Your task to perform on an android device: find snoozed emails in the gmail app Image 0: 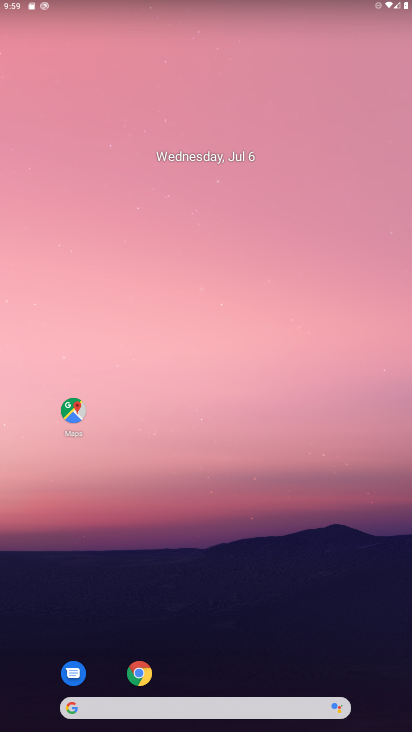
Step 0: click (211, 662)
Your task to perform on an android device: find snoozed emails in the gmail app Image 1: 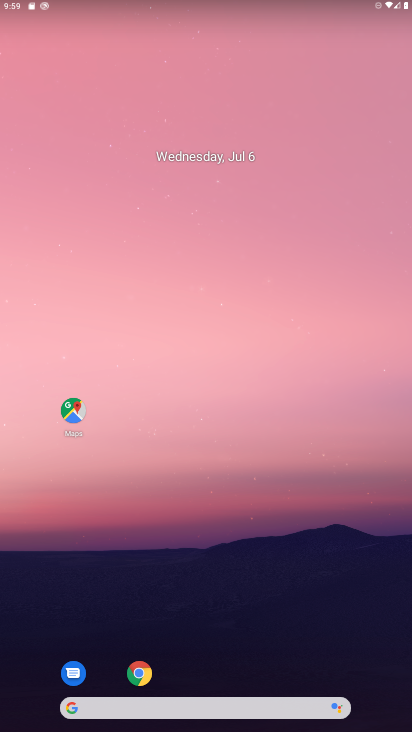
Step 1: drag from (211, 662) to (193, 187)
Your task to perform on an android device: find snoozed emails in the gmail app Image 2: 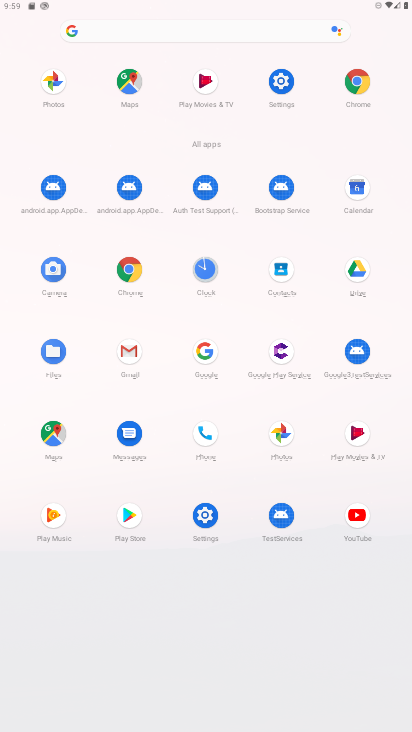
Step 2: click (127, 360)
Your task to perform on an android device: find snoozed emails in the gmail app Image 3: 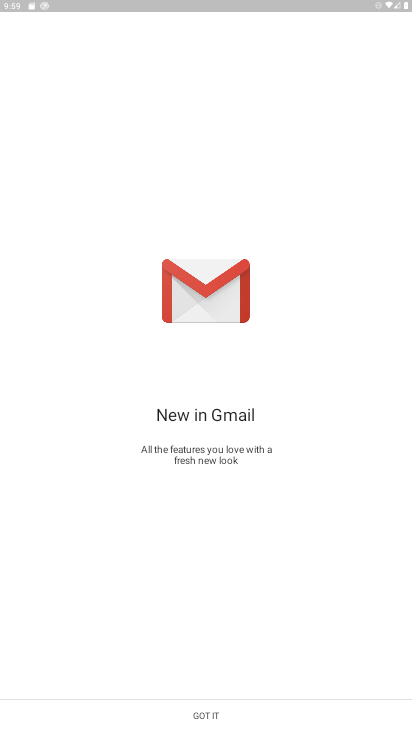
Step 3: click (284, 719)
Your task to perform on an android device: find snoozed emails in the gmail app Image 4: 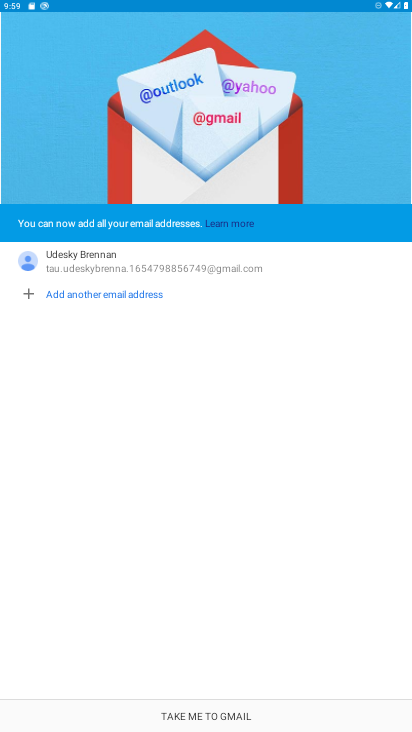
Step 4: click (284, 719)
Your task to perform on an android device: find snoozed emails in the gmail app Image 5: 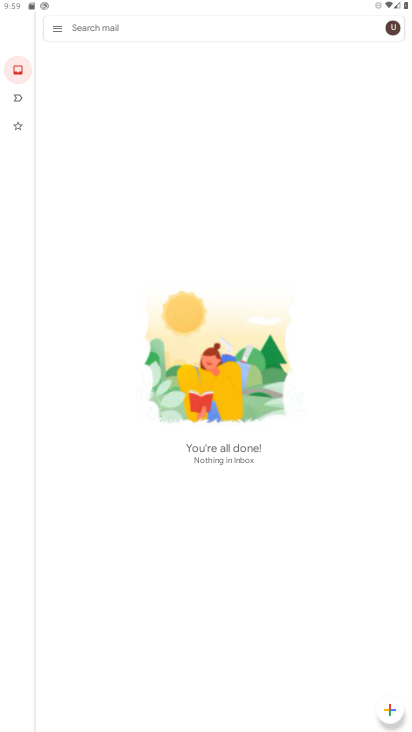
Step 5: click (61, 24)
Your task to perform on an android device: find snoozed emails in the gmail app Image 6: 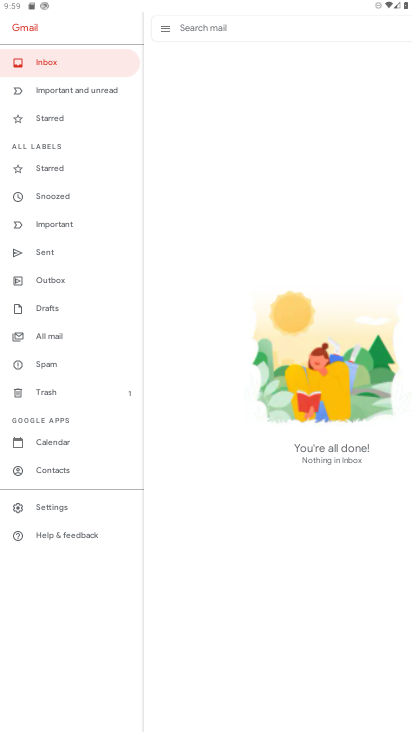
Step 6: click (64, 199)
Your task to perform on an android device: find snoozed emails in the gmail app Image 7: 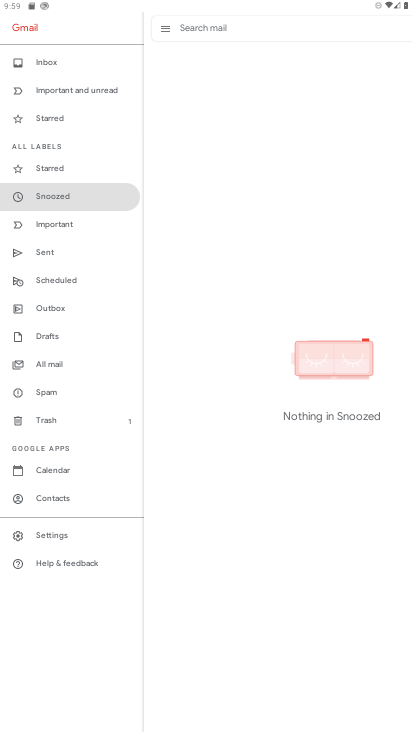
Step 7: task complete